Your task to perform on an android device: Open calendar and show me the third week of next month Image 0: 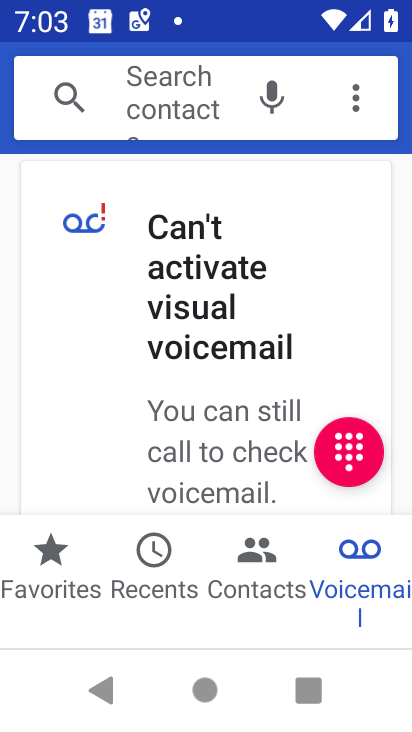
Step 0: press home button
Your task to perform on an android device: Open calendar and show me the third week of next month Image 1: 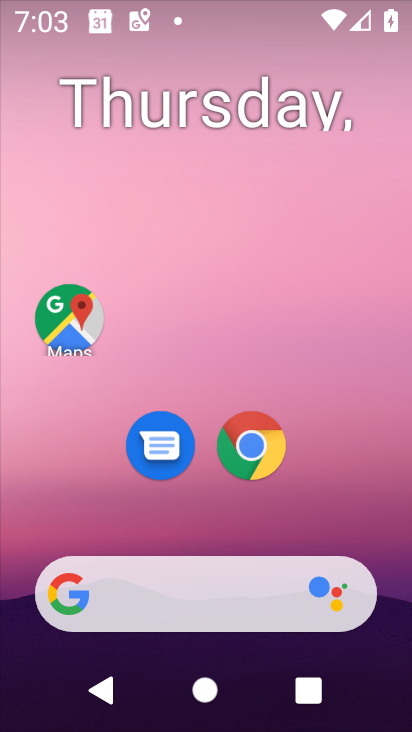
Step 1: drag from (376, 645) to (318, 37)
Your task to perform on an android device: Open calendar and show me the third week of next month Image 2: 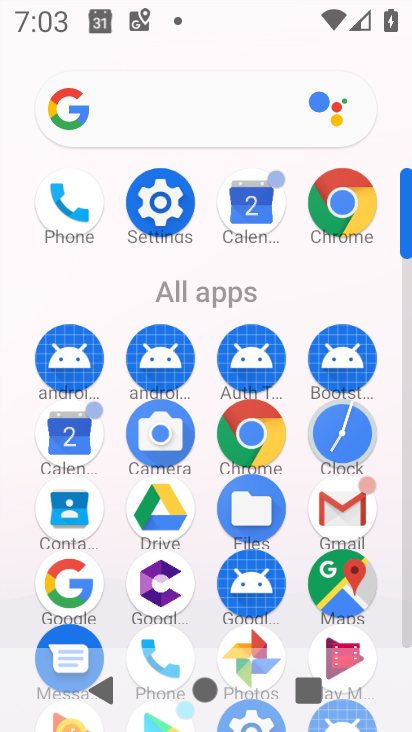
Step 2: click (61, 437)
Your task to perform on an android device: Open calendar and show me the third week of next month Image 3: 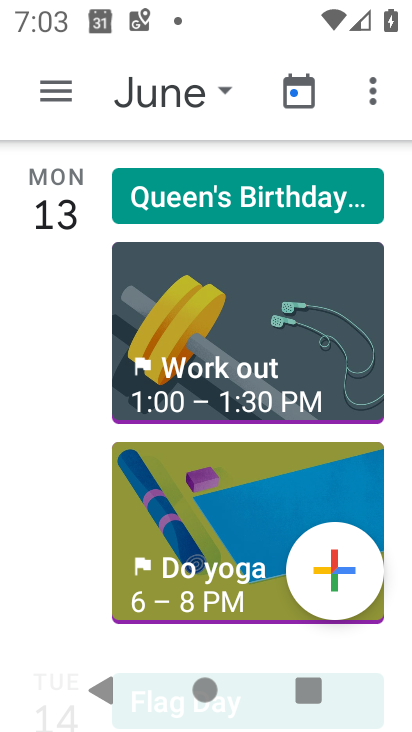
Step 3: click (184, 95)
Your task to perform on an android device: Open calendar and show me the third week of next month Image 4: 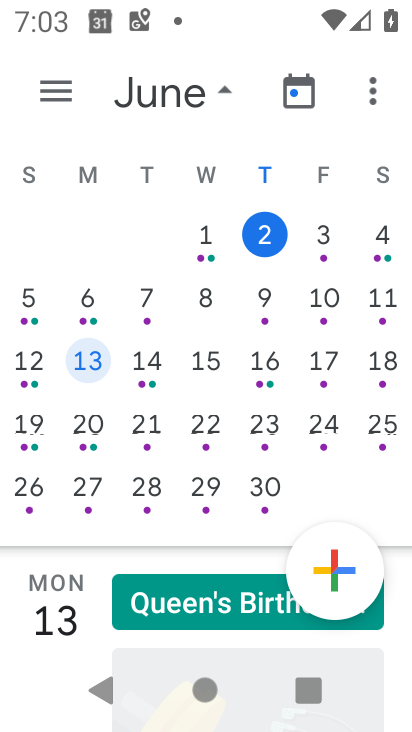
Step 4: drag from (328, 361) to (57, 373)
Your task to perform on an android device: Open calendar and show me the third week of next month Image 5: 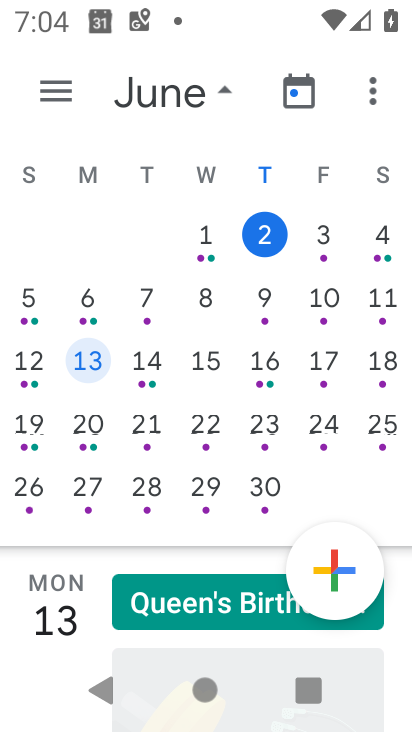
Step 5: drag from (199, 371) to (5, 334)
Your task to perform on an android device: Open calendar and show me the third week of next month Image 6: 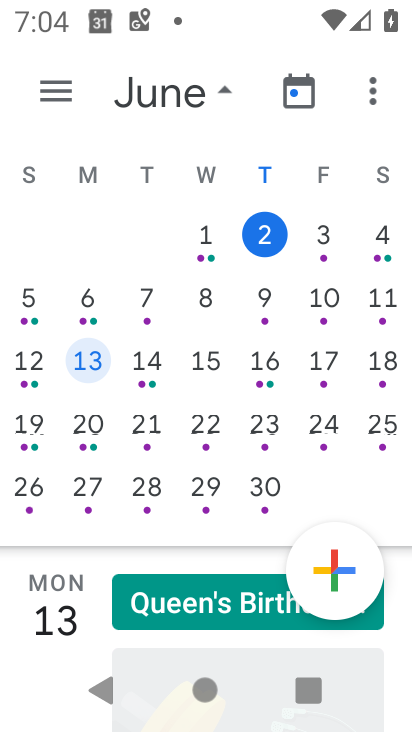
Step 6: drag from (311, 379) to (1, 304)
Your task to perform on an android device: Open calendar and show me the third week of next month Image 7: 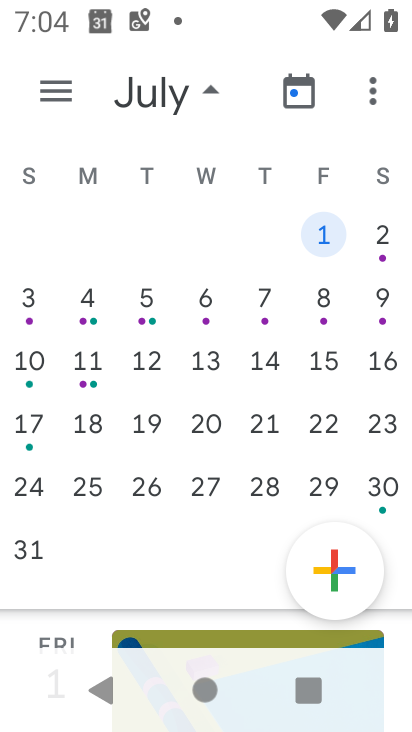
Step 7: click (32, 425)
Your task to perform on an android device: Open calendar and show me the third week of next month Image 8: 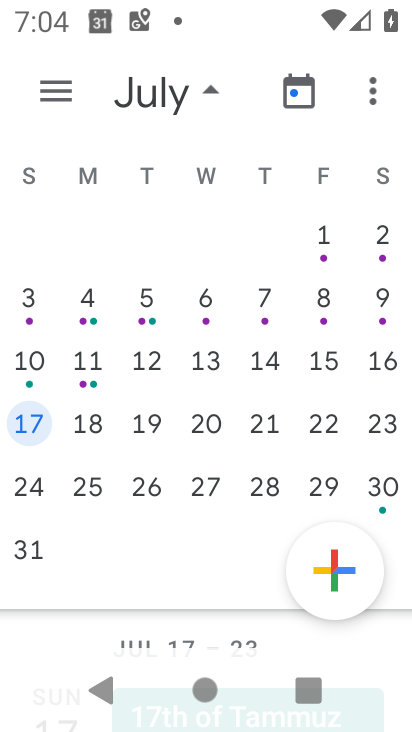
Step 8: task complete